Your task to perform on an android device: move a message to another label in the gmail app Image 0: 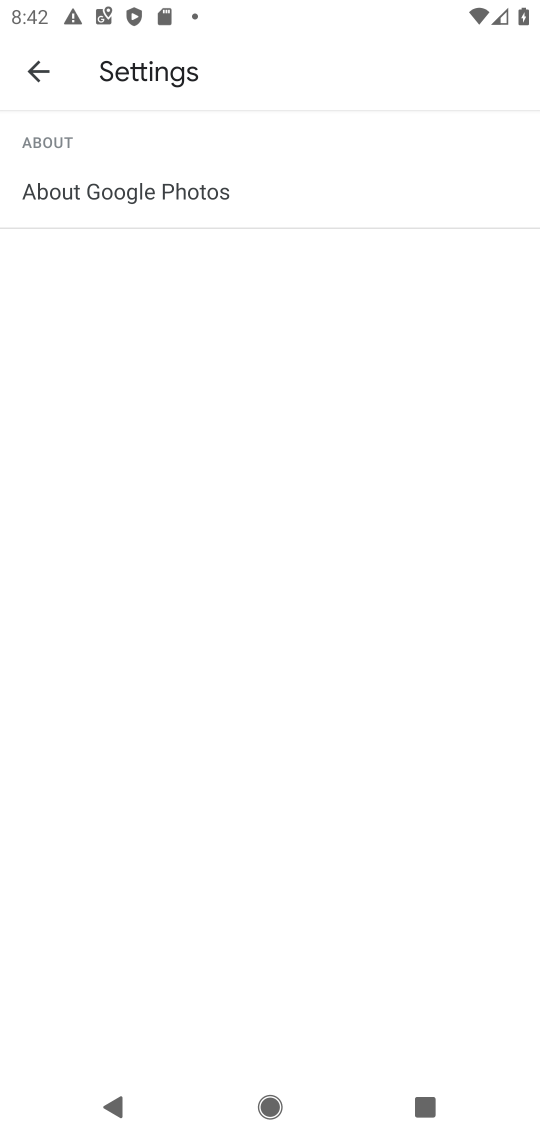
Step 0: press home button
Your task to perform on an android device: move a message to another label in the gmail app Image 1: 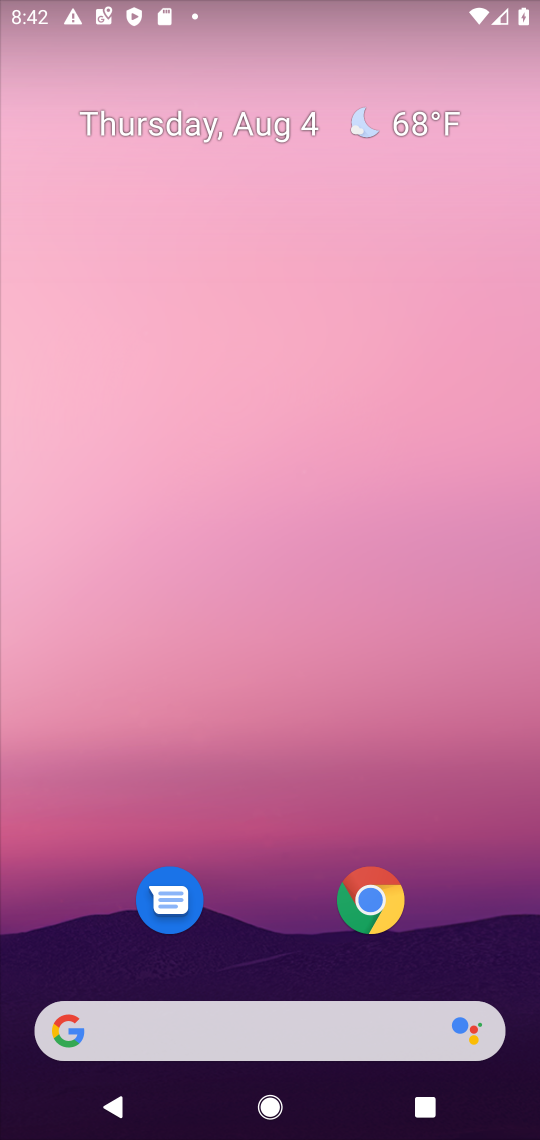
Step 1: drag from (242, 430) to (250, 137)
Your task to perform on an android device: move a message to another label in the gmail app Image 2: 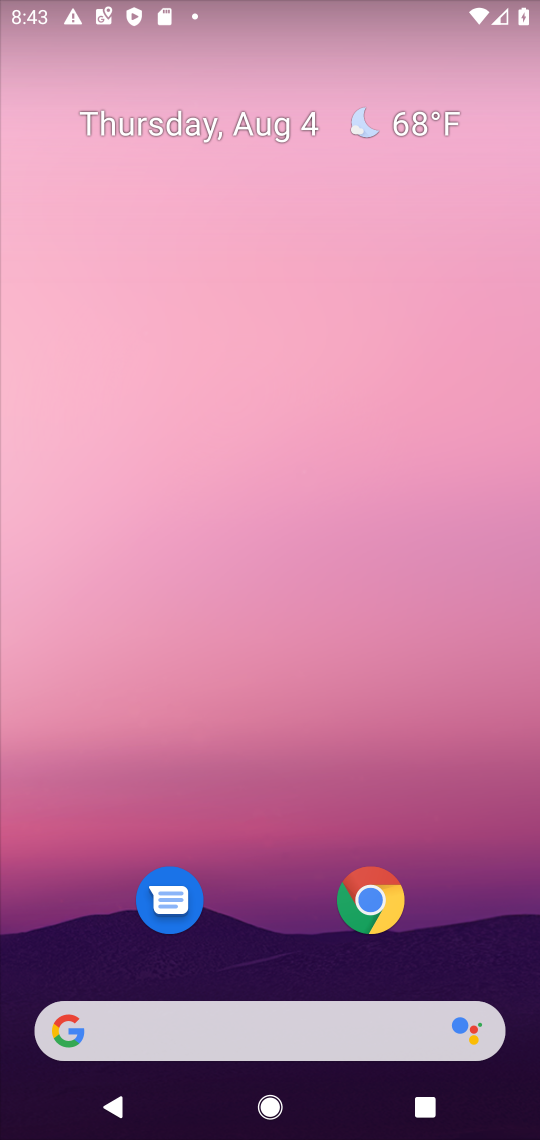
Step 2: drag from (358, 291) to (381, 191)
Your task to perform on an android device: move a message to another label in the gmail app Image 3: 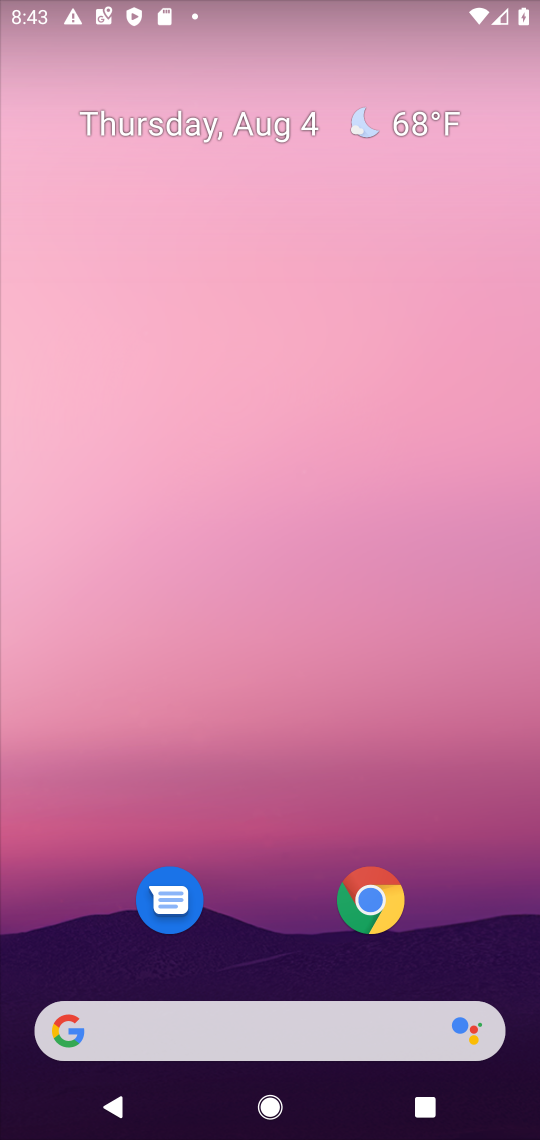
Step 3: drag from (229, 686) to (238, 274)
Your task to perform on an android device: move a message to another label in the gmail app Image 4: 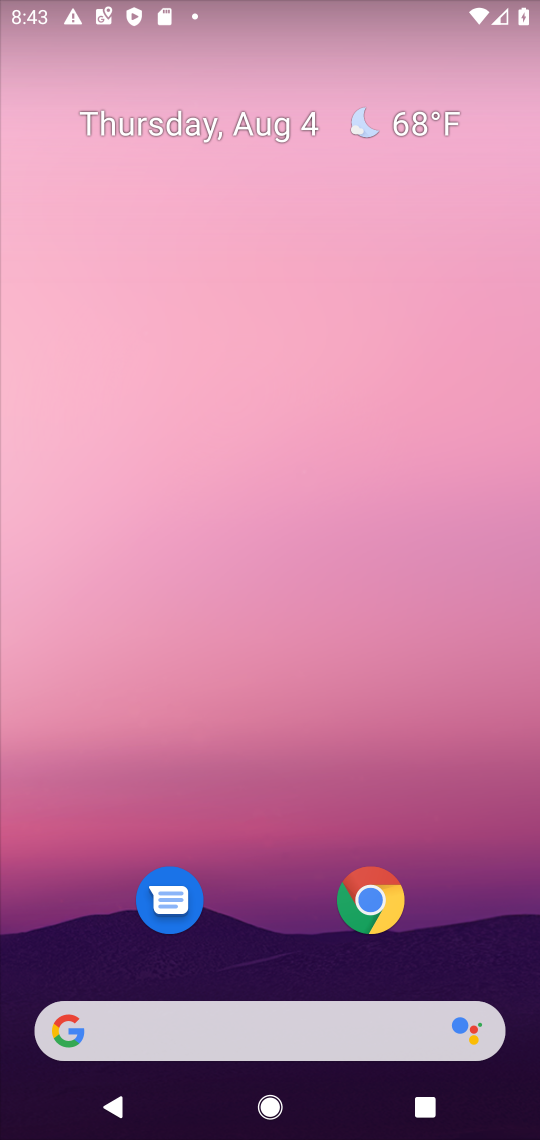
Step 4: drag from (274, 468) to (274, 219)
Your task to perform on an android device: move a message to another label in the gmail app Image 5: 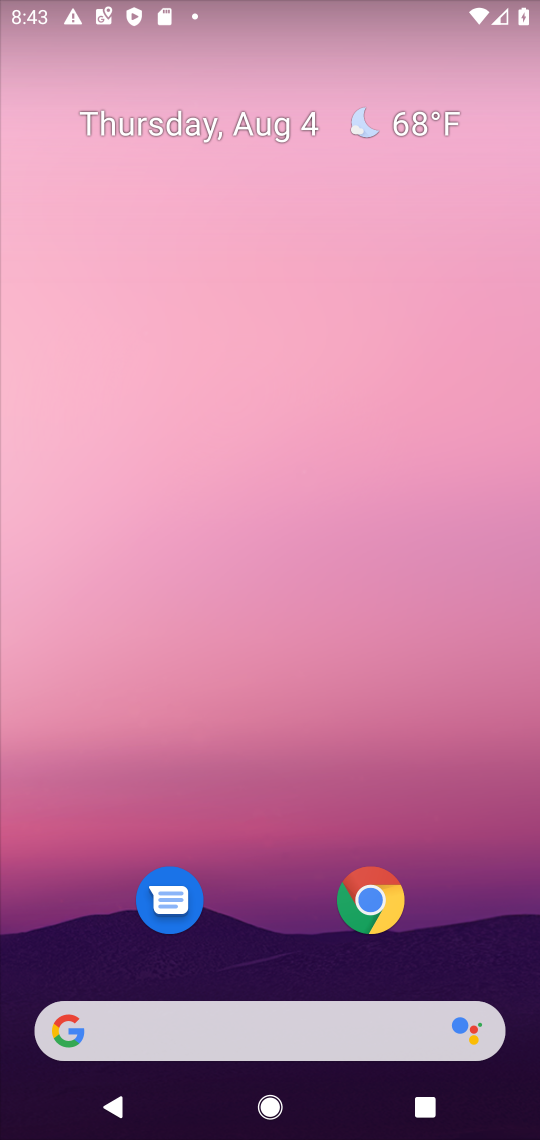
Step 5: drag from (273, 912) to (283, 191)
Your task to perform on an android device: move a message to another label in the gmail app Image 6: 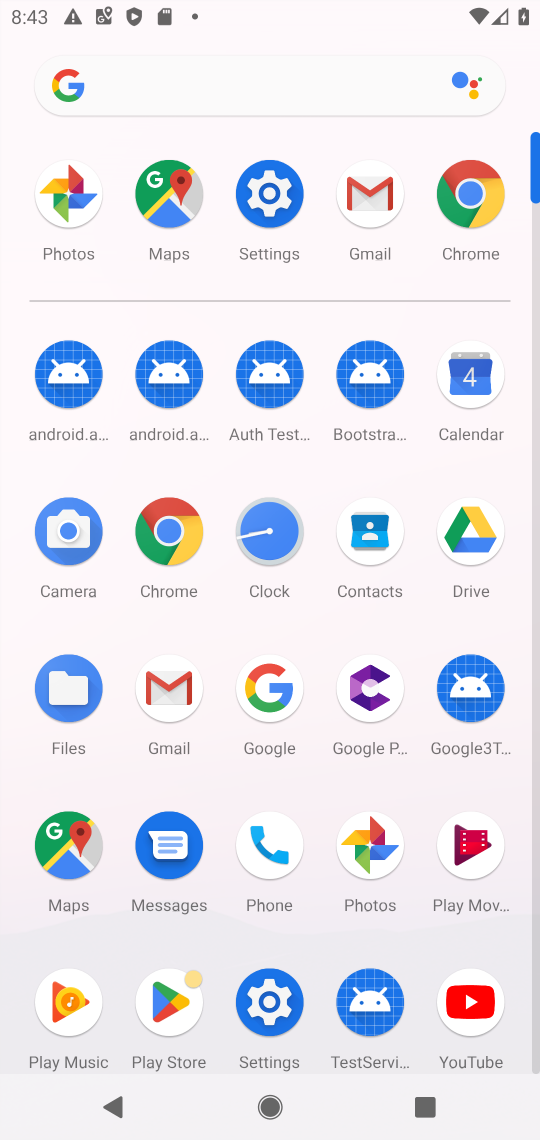
Step 6: click (369, 186)
Your task to perform on an android device: move a message to another label in the gmail app Image 7: 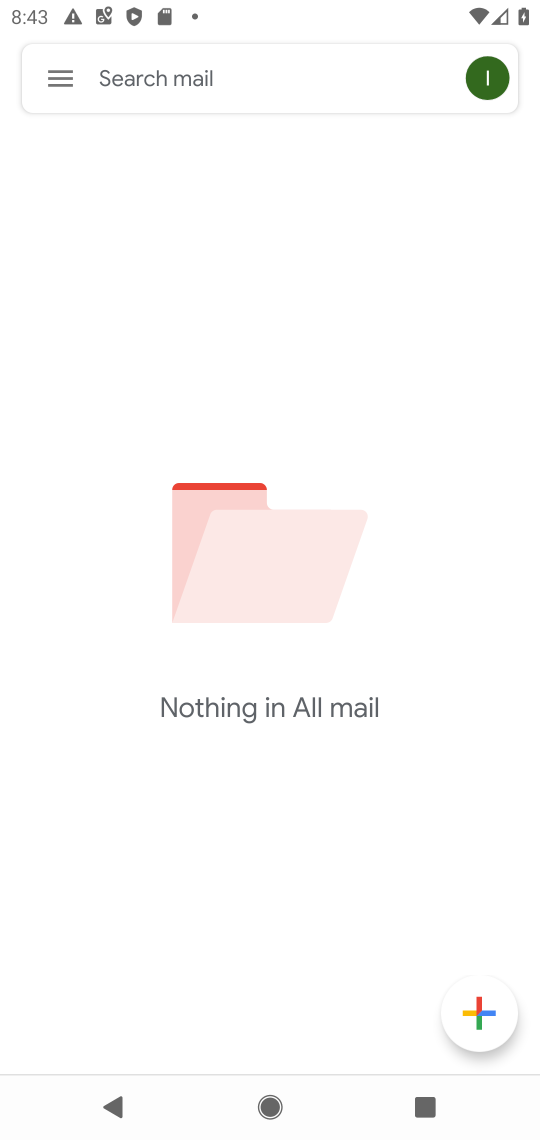
Step 7: task complete